Your task to perform on an android device: remove spam from my inbox in the gmail app Image 0: 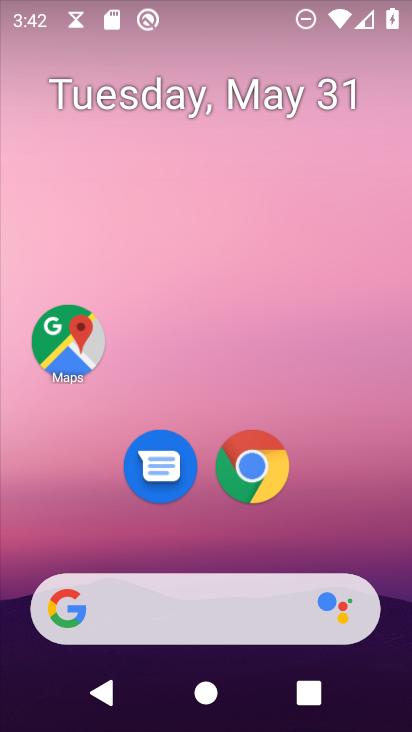
Step 0: drag from (263, 562) to (299, 57)
Your task to perform on an android device: remove spam from my inbox in the gmail app Image 1: 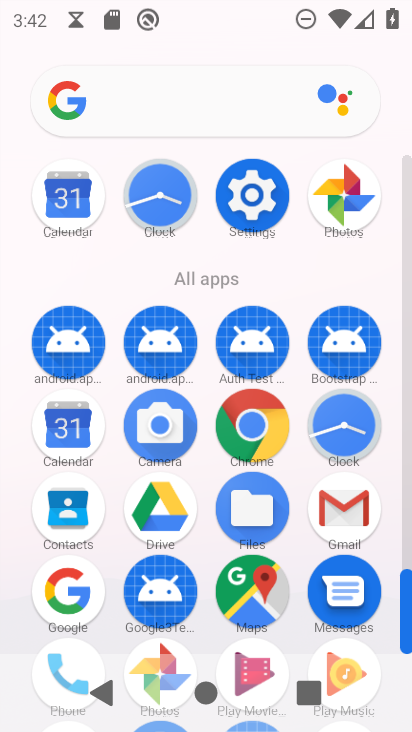
Step 1: click (351, 507)
Your task to perform on an android device: remove spam from my inbox in the gmail app Image 2: 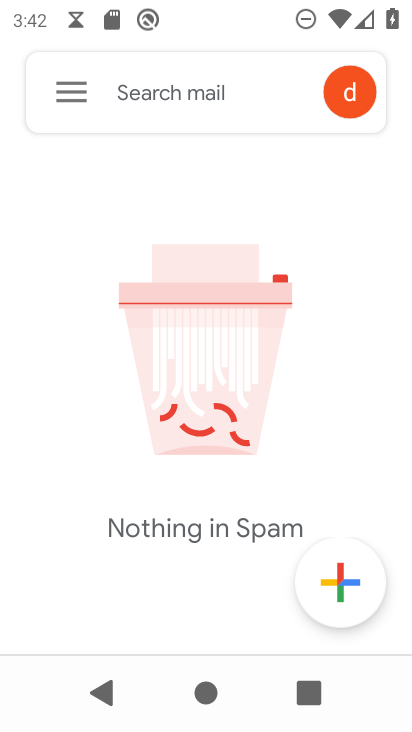
Step 2: click (74, 93)
Your task to perform on an android device: remove spam from my inbox in the gmail app Image 3: 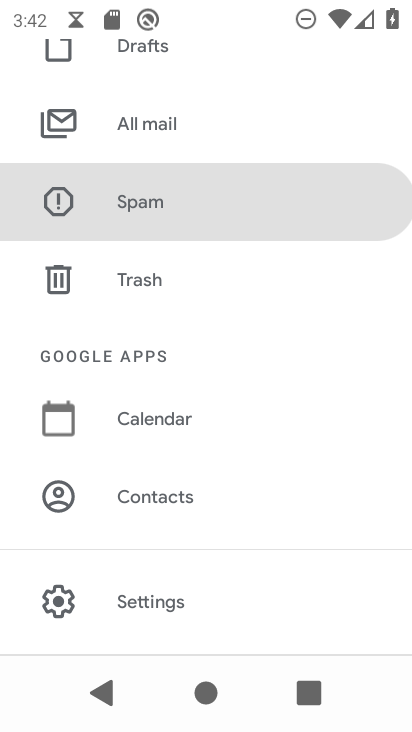
Step 3: click (196, 207)
Your task to perform on an android device: remove spam from my inbox in the gmail app Image 4: 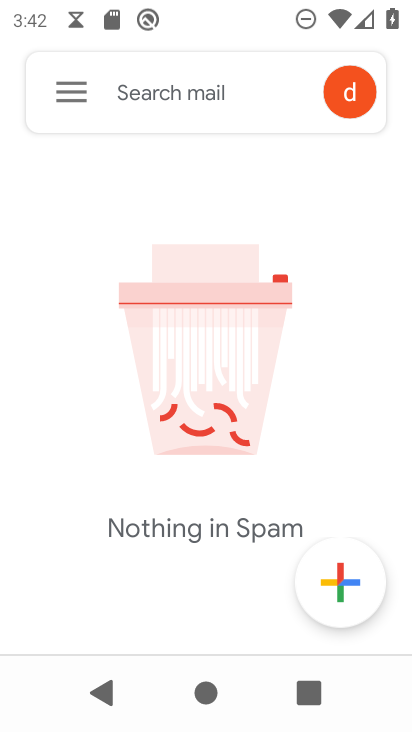
Step 4: task complete